Your task to perform on an android device: make emails show in primary in the gmail app Image 0: 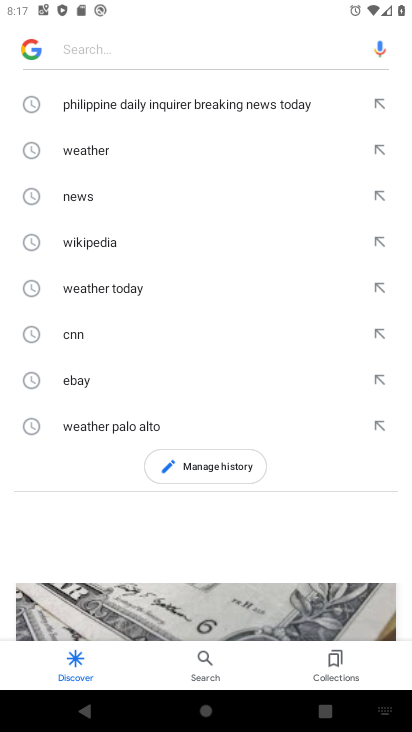
Step 0: press home button
Your task to perform on an android device: make emails show in primary in the gmail app Image 1: 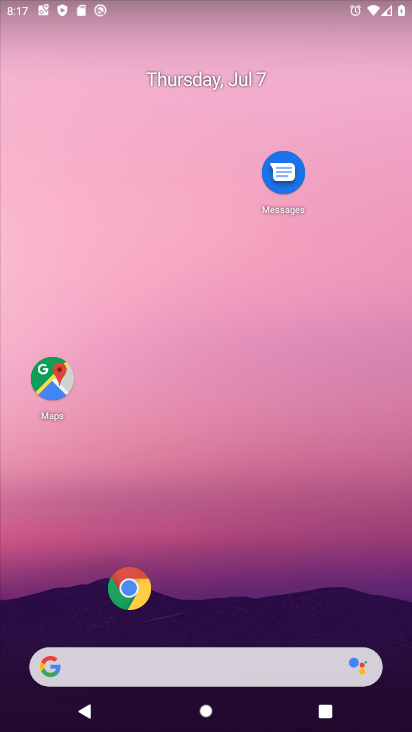
Step 1: drag from (33, 716) to (326, 31)
Your task to perform on an android device: make emails show in primary in the gmail app Image 2: 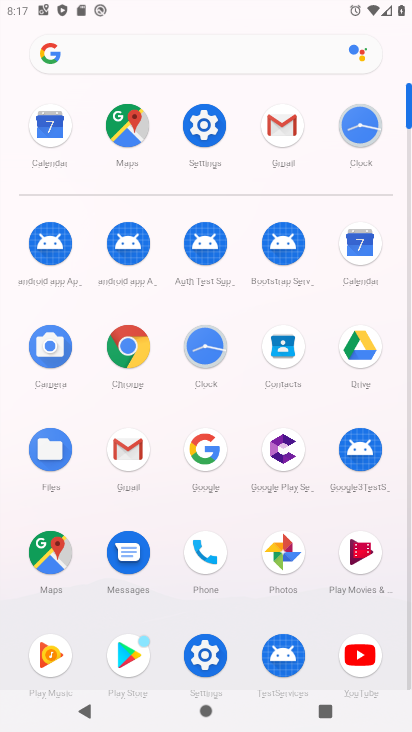
Step 2: click (275, 126)
Your task to perform on an android device: make emails show in primary in the gmail app Image 3: 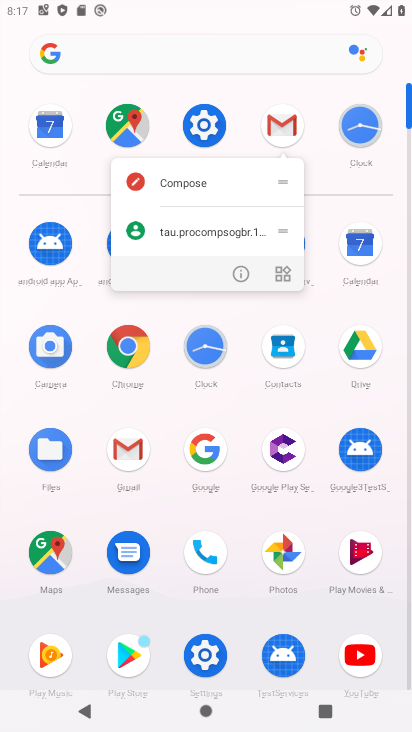
Step 3: click (280, 121)
Your task to perform on an android device: make emails show in primary in the gmail app Image 4: 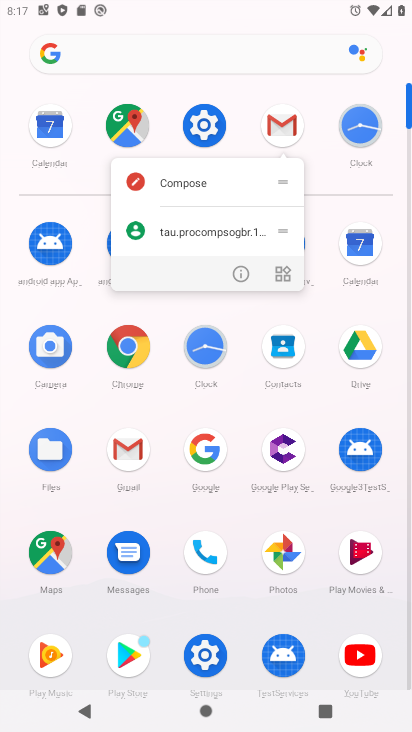
Step 4: click (280, 126)
Your task to perform on an android device: make emails show in primary in the gmail app Image 5: 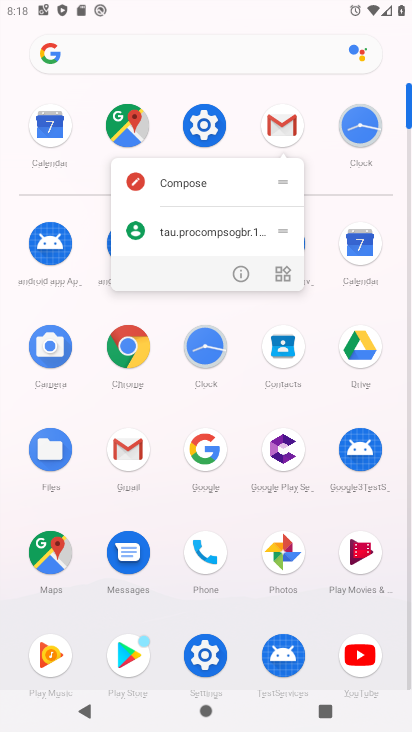
Step 5: click (293, 120)
Your task to perform on an android device: make emails show in primary in the gmail app Image 6: 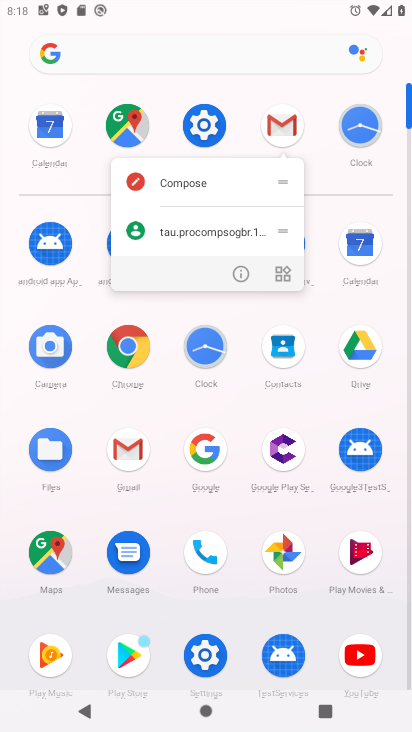
Step 6: click (277, 119)
Your task to perform on an android device: make emails show in primary in the gmail app Image 7: 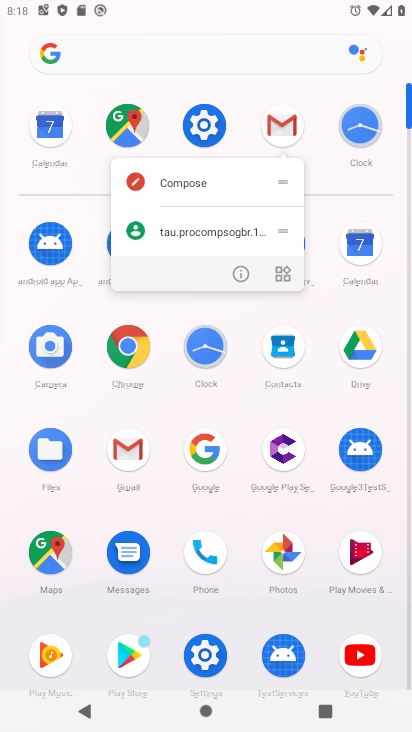
Step 7: click (269, 119)
Your task to perform on an android device: make emails show in primary in the gmail app Image 8: 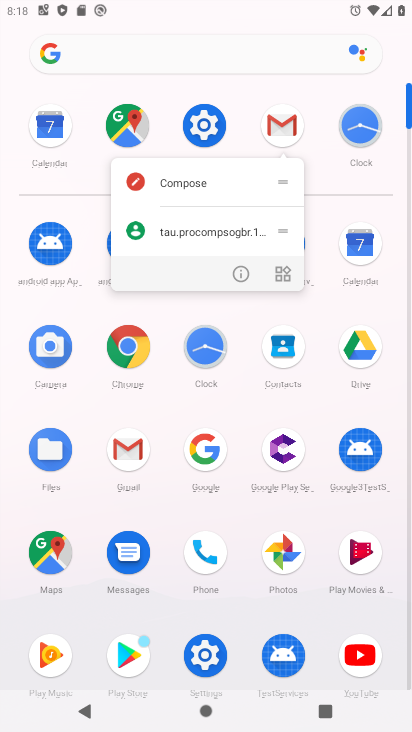
Step 8: task complete